Your task to perform on an android device: Set the phone to "Do not disturb". Image 0: 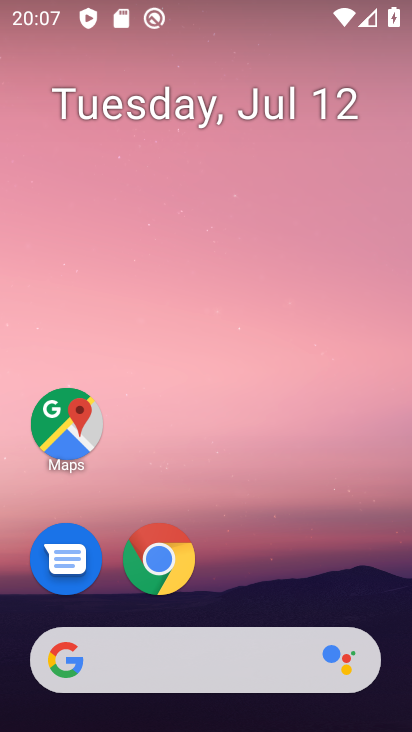
Step 0: drag from (362, 573) to (366, 133)
Your task to perform on an android device: Set the phone to "Do not disturb". Image 1: 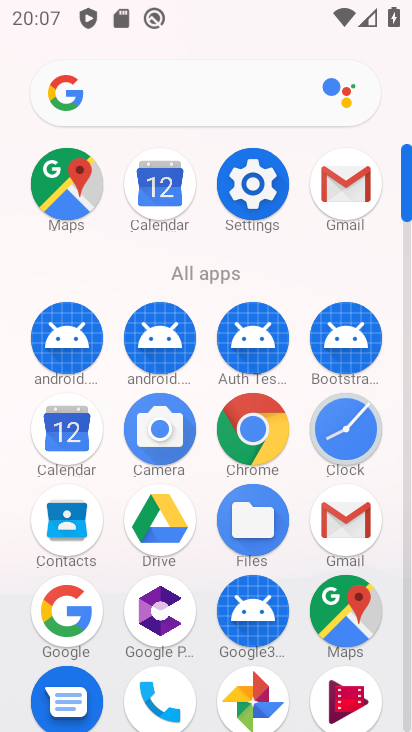
Step 1: click (250, 201)
Your task to perform on an android device: Set the phone to "Do not disturb". Image 2: 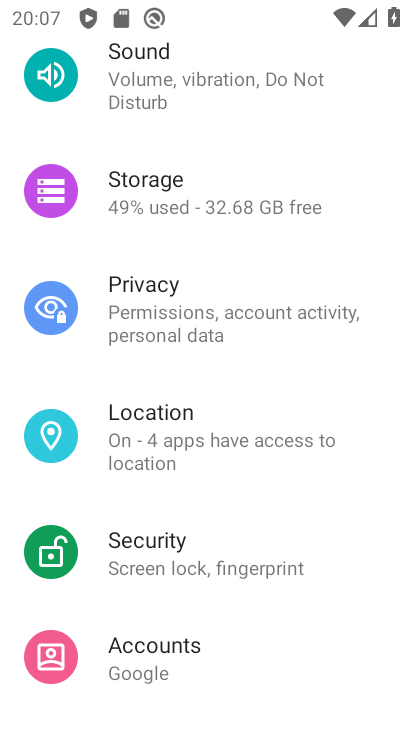
Step 2: drag from (364, 178) to (369, 277)
Your task to perform on an android device: Set the phone to "Do not disturb". Image 3: 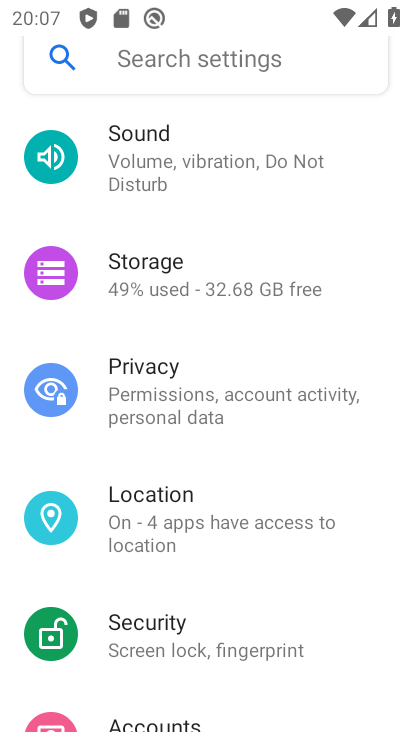
Step 3: drag from (366, 175) to (369, 284)
Your task to perform on an android device: Set the phone to "Do not disturb". Image 4: 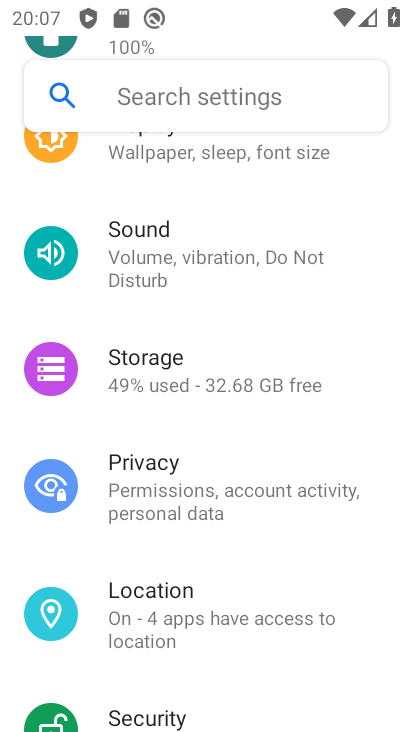
Step 4: drag from (369, 182) to (371, 303)
Your task to perform on an android device: Set the phone to "Do not disturb". Image 5: 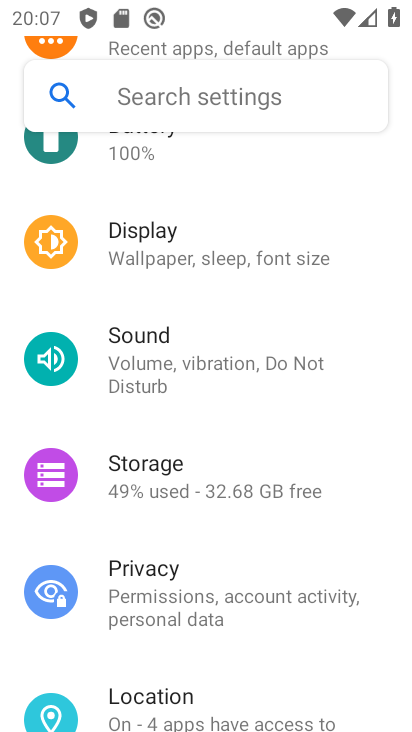
Step 5: drag from (370, 202) to (373, 317)
Your task to perform on an android device: Set the phone to "Do not disturb". Image 6: 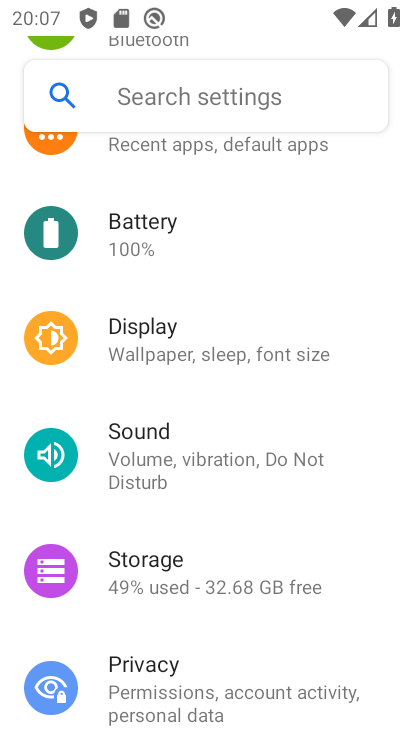
Step 6: drag from (374, 201) to (371, 350)
Your task to perform on an android device: Set the phone to "Do not disturb". Image 7: 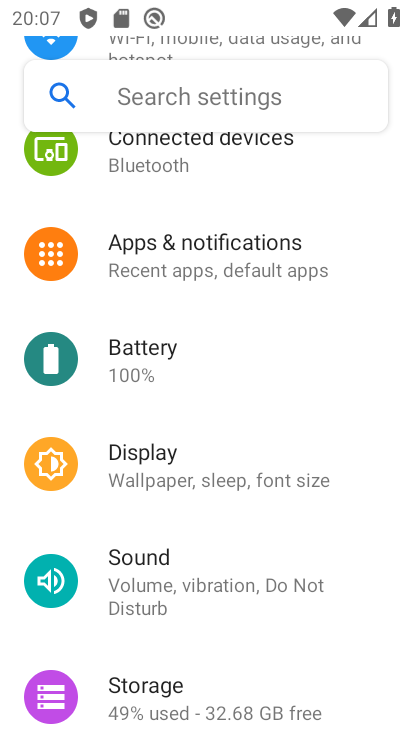
Step 7: drag from (368, 217) to (369, 426)
Your task to perform on an android device: Set the phone to "Do not disturb". Image 8: 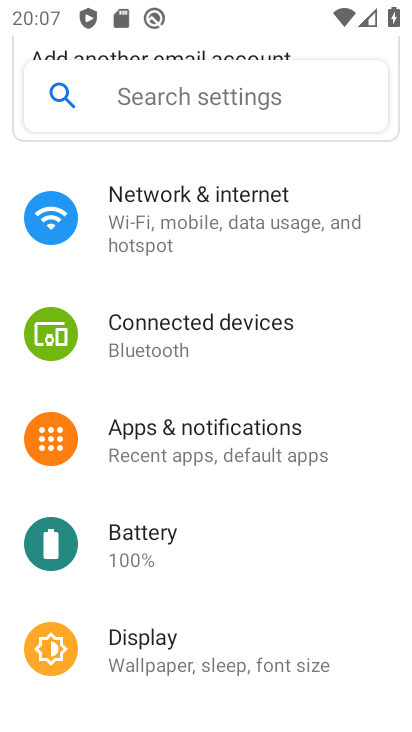
Step 8: drag from (370, 182) to (372, 391)
Your task to perform on an android device: Set the phone to "Do not disturb". Image 9: 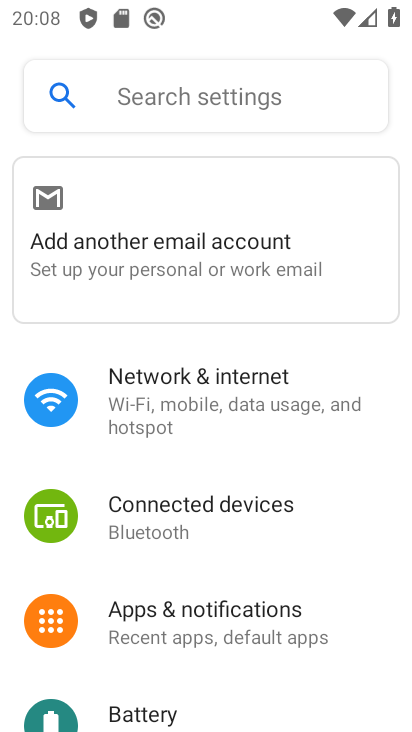
Step 9: drag from (373, 398) to (374, 295)
Your task to perform on an android device: Set the phone to "Do not disturb". Image 10: 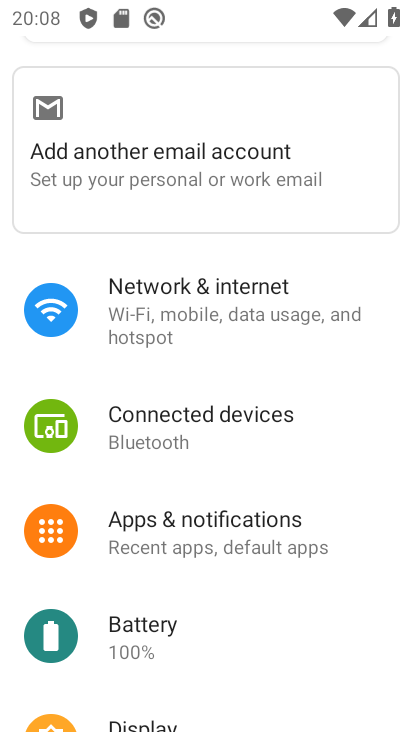
Step 10: drag from (363, 407) to (363, 309)
Your task to perform on an android device: Set the phone to "Do not disturb". Image 11: 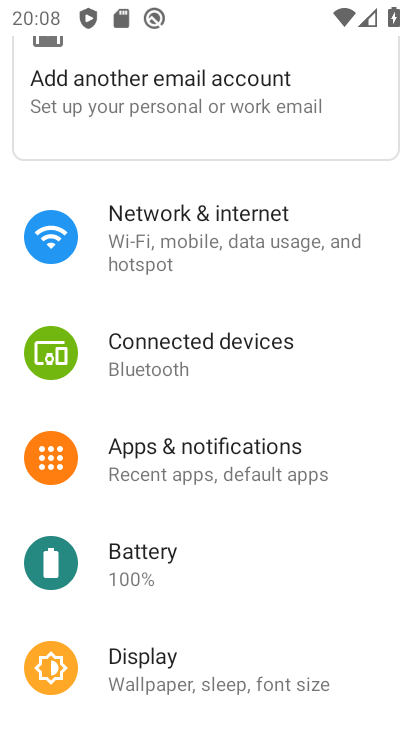
Step 11: drag from (361, 399) to (363, 282)
Your task to perform on an android device: Set the phone to "Do not disturb". Image 12: 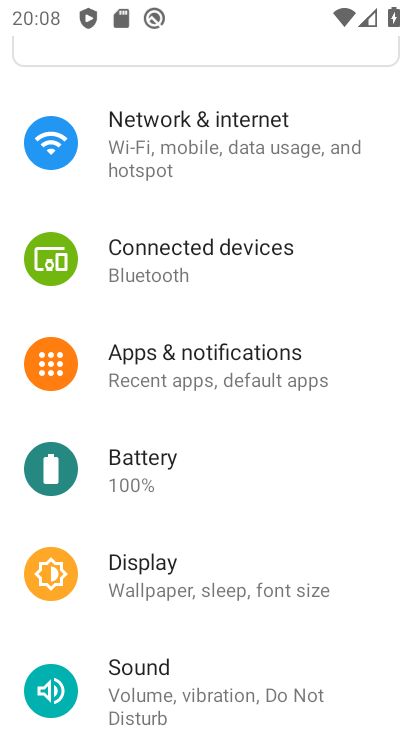
Step 12: drag from (366, 399) to (365, 291)
Your task to perform on an android device: Set the phone to "Do not disturb". Image 13: 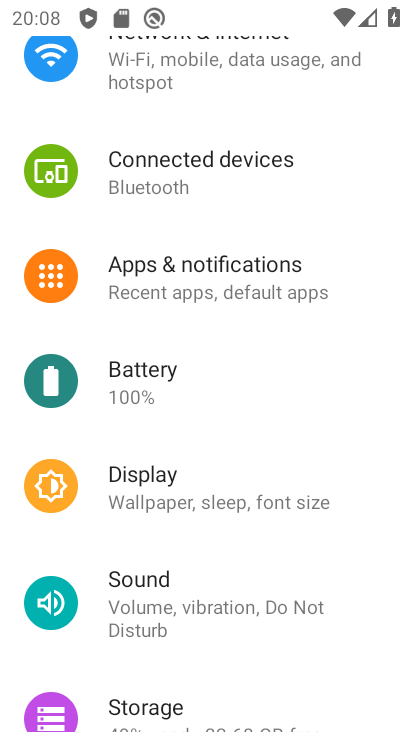
Step 13: drag from (365, 422) to (364, 263)
Your task to perform on an android device: Set the phone to "Do not disturb". Image 14: 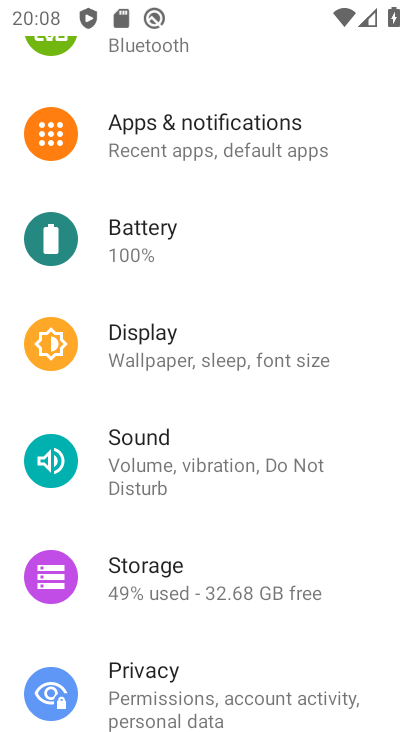
Step 14: drag from (365, 465) to (372, 333)
Your task to perform on an android device: Set the phone to "Do not disturb". Image 15: 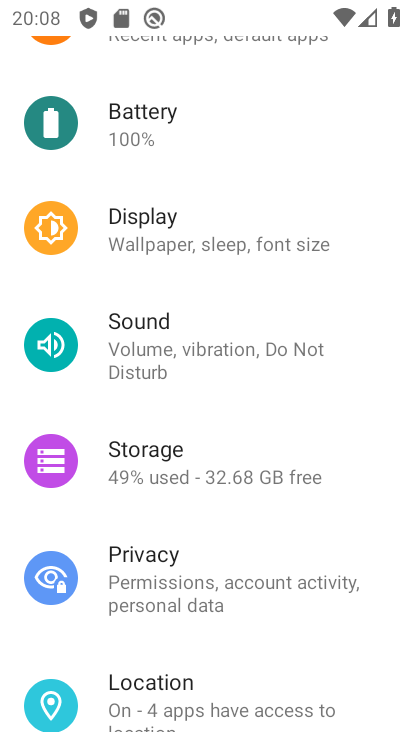
Step 15: click (276, 353)
Your task to perform on an android device: Set the phone to "Do not disturb". Image 16: 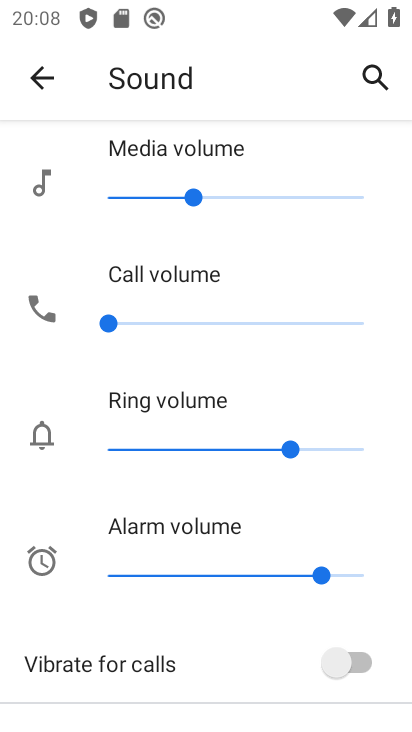
Step 16: drag from (382, 542) to (381, 242)
Your task to perform on an android device: Set the phone to "Do not disturb". Image 17: 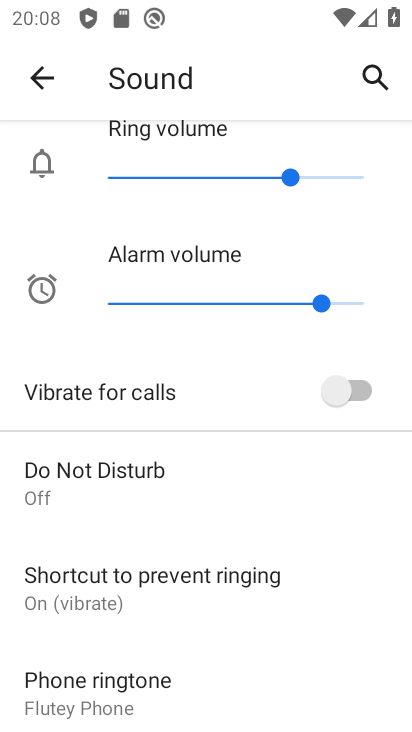
Step 17: click (183, 496)
Your task to perform on an android device: Set the phone to "Do not disturb". Image 18: 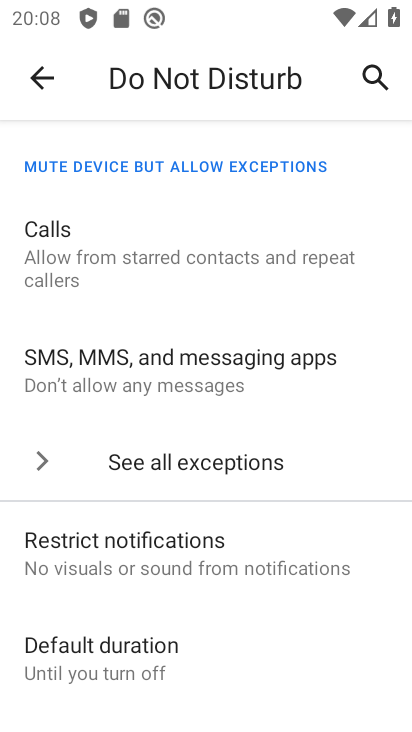
Step 18: drag from (312, 570) to (312, 326)
Your task to perform on an android device: Set the phone to "Do not disturb". Image 19: 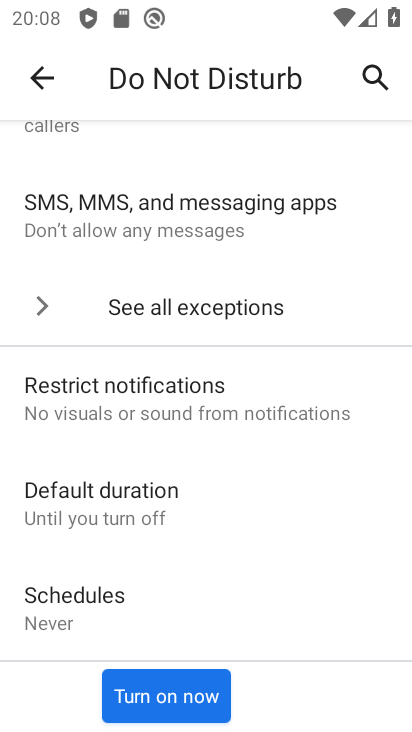
Step 19: click (198, 699)
Your task to perform on an android device: Set the phone to "Do not disturb". Image 20: 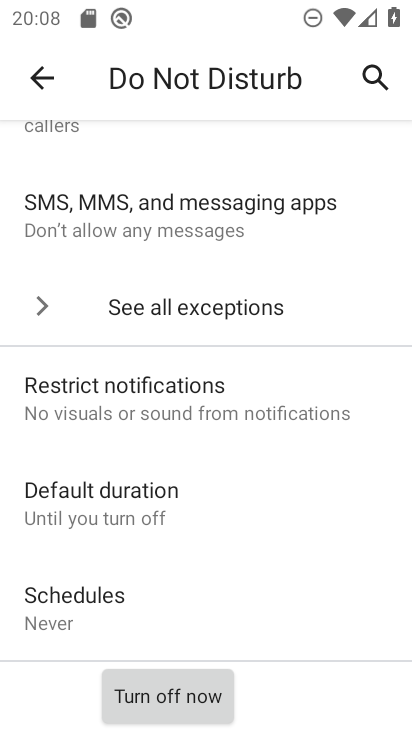
Step 20: task complete